Your task to perform on an android device: turn off picture-in-picture Image 0: 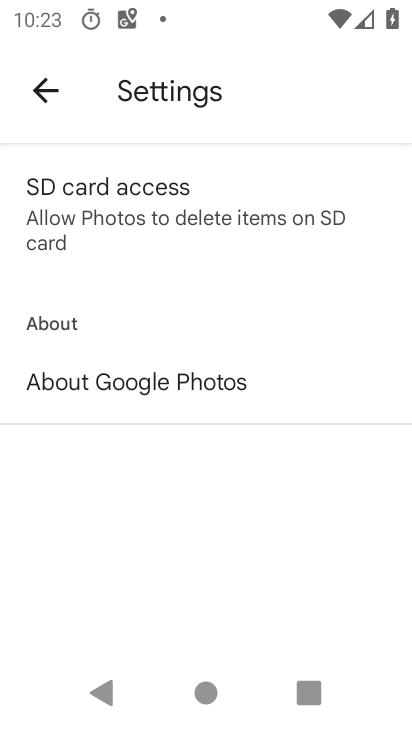
Step 0: click (42, 106)
Your task to perform on an android device: turn off picture-in-picture Image 1: 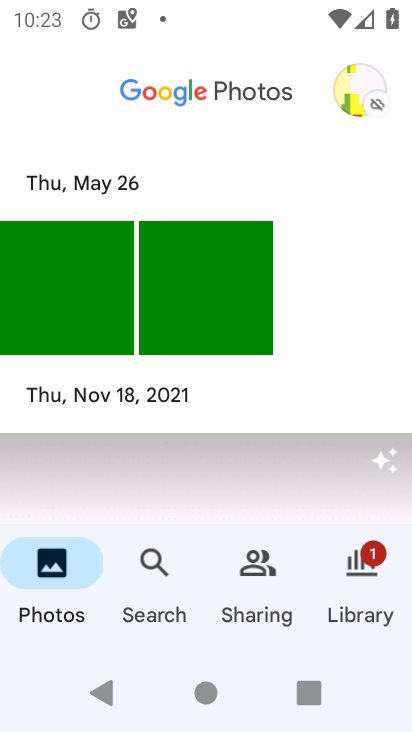
Step 1: press back button
Your task to perform on an android device: turn off picture-in-picture Image 2: 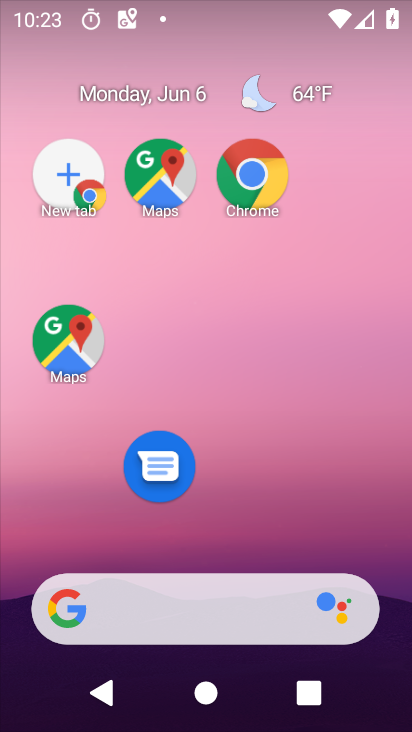
Step 2: click (253, 182)
Your task to perform on an android device: turn off picture-in-picture Image 3: 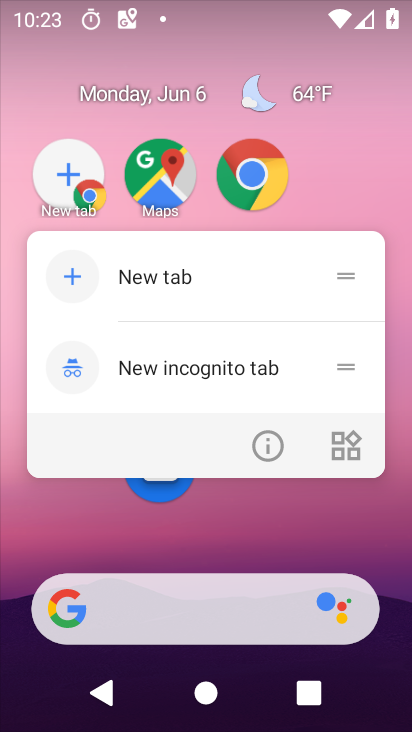
Step 3: click (274, 447)
Your task to perform on an android device: turn off picture-in-picture Image 4: 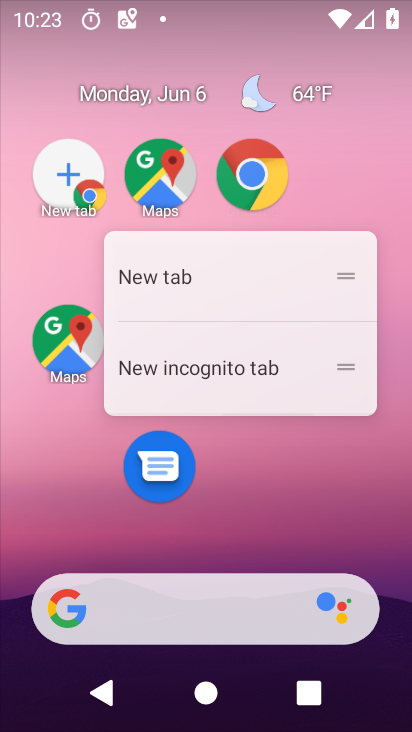
Step 4: click (274, 444)
Your task to perform on an android device: turn off picture-in-picture Image 5: 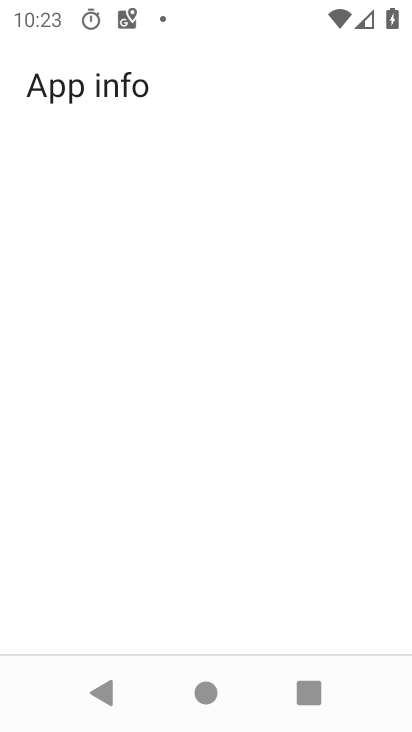
Step 5: click (273, 437)
Your task to perform on an android device: turn off picture-in-picture Image 6: 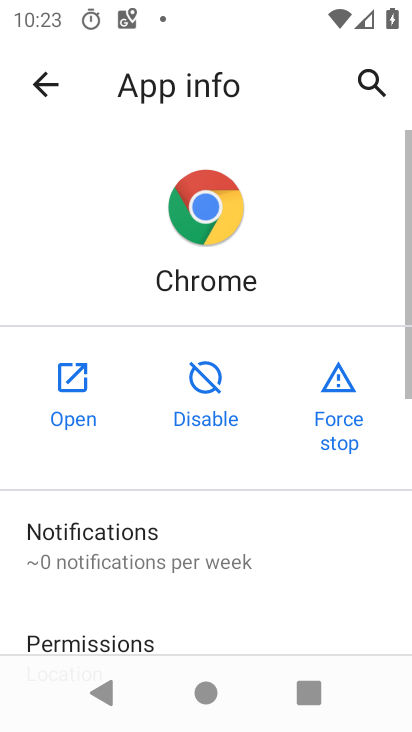
Step 6: drag from (195, 516) to (165, 200)
Your task to perform on an android device: turn off picture-in-picture Image 7: 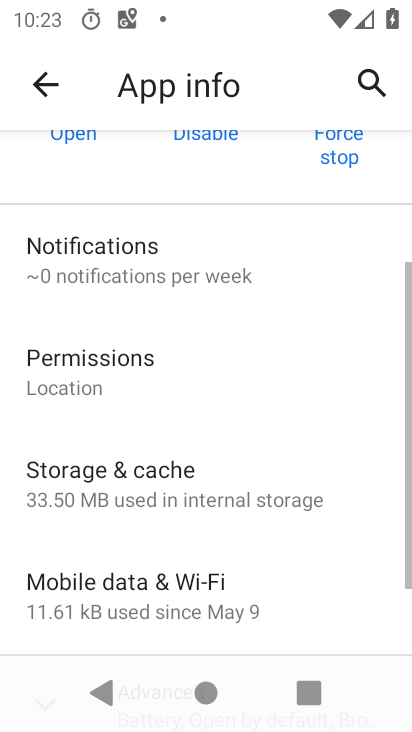
Step 7: drag from (153, 529) to (153, 219)
Your task to perform on an android device: turn off picture-in-picture Image 8: 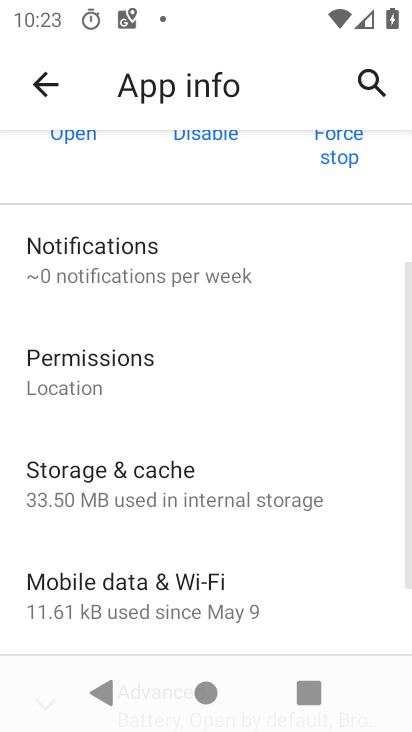
Step 8: drag from (238, 520) to (203, 171)
Your task to perform on an android device: turn off picture-in-picture Image 9: 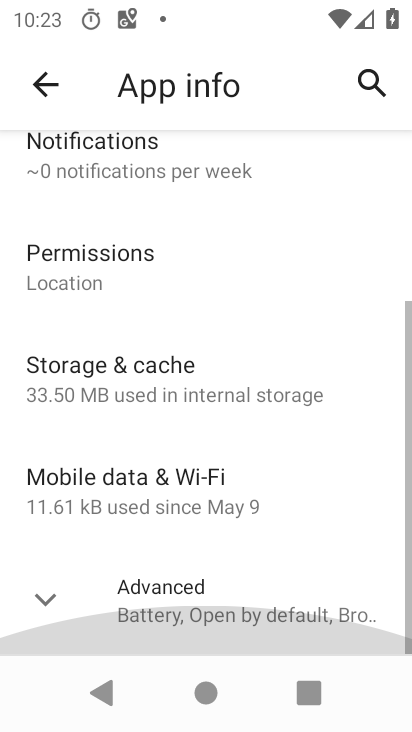
Step 9: drag from (153, 469) to (141, 279)
Your task to perform on an android device: turn off picture-in-picture Image 10: 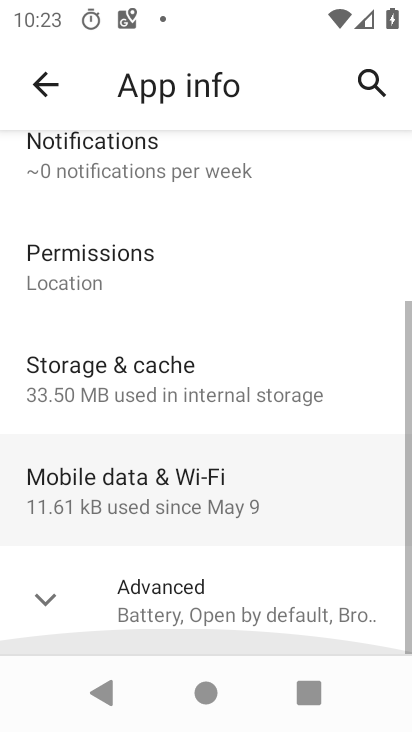
Step 10: drag from (163, 475) to (163, 150)
Your task to perform on an android device: turn off picture-in-picture Image 11: 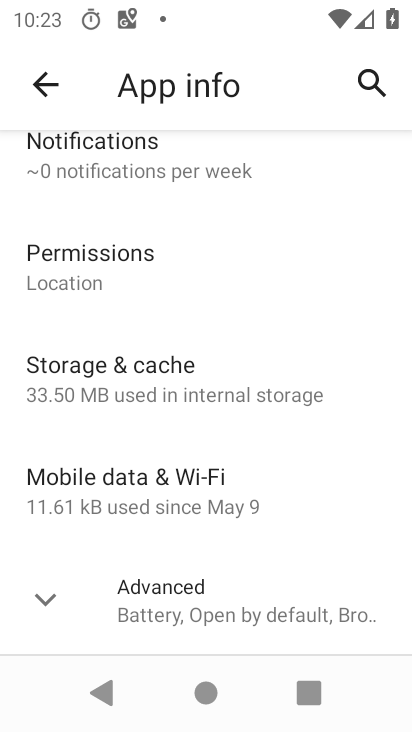
Step 11: click (181, 595)
Your task to perform on an android device: turn off picture-in-picture Image 12: 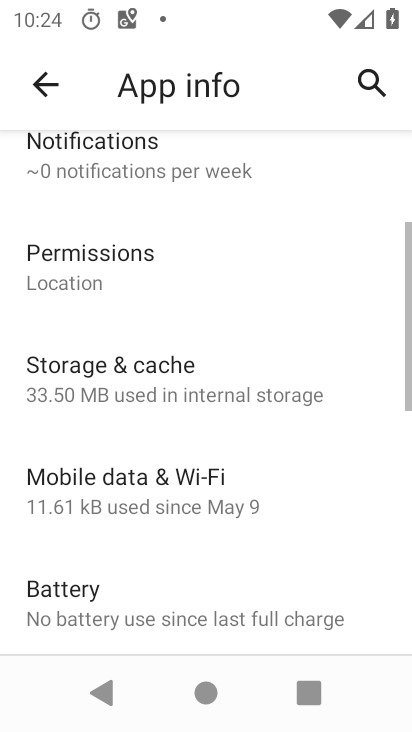
Step 12: drag from (183, 602) to (205, 256)
Your task to perform on an android device: turn off picture-in-picture Image 13: 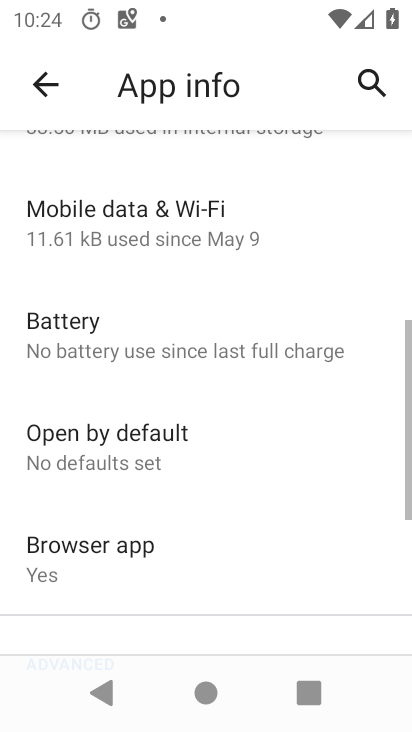
Step 13: drag from (178, 409) to (178, 171)
Your task to perform on an android device: turn off picture-in-picture Image 14: 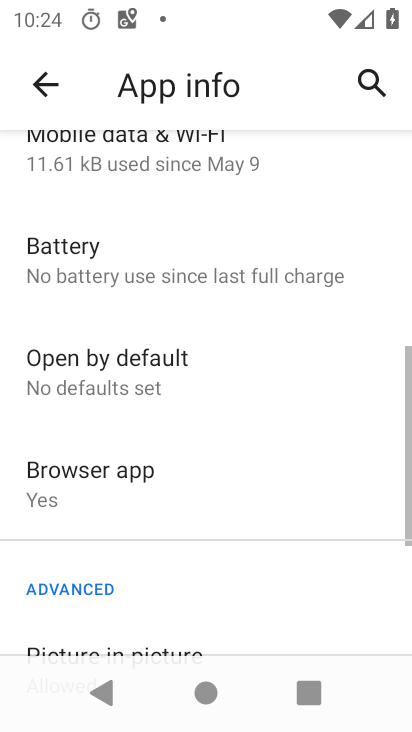
Step 14: drag from (169, 482) to (167, 176)
Your task to perform on an android device: turn off picture-in-picture Image 15: 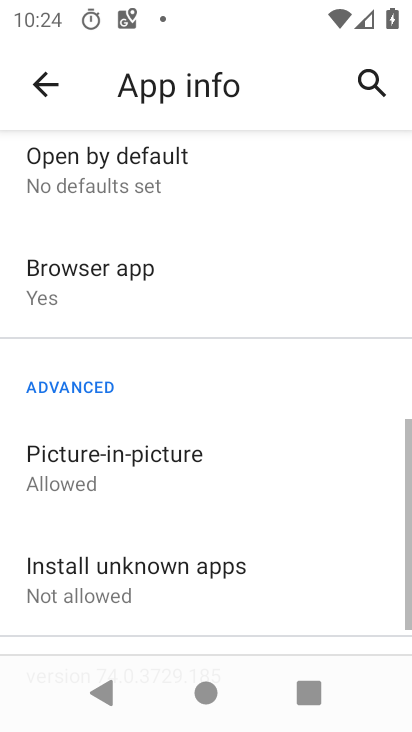
Step 15: drag from (165, 455) to (165, 198)
Your task to perform on an android device: turn off picture-in-picture Image 16: 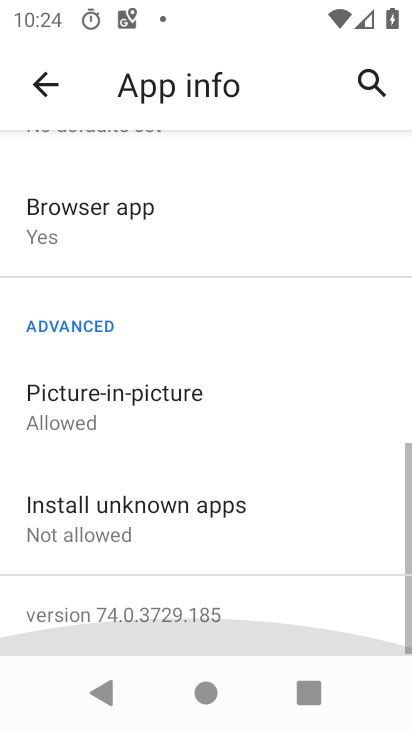
Step 16: drag from (160, 515) to (169, 233)
Your task to perform on an android device: turn off picture-in-picture Image 17: 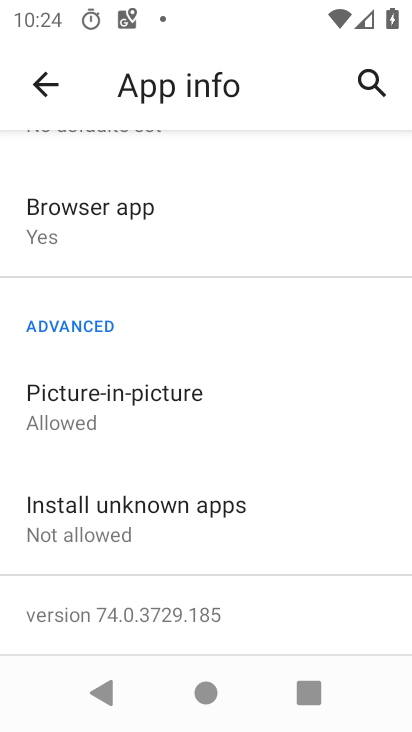
Step 17: click (76, 399)
Your task to perform on an android device: turn off picture-in-picture Image 18: 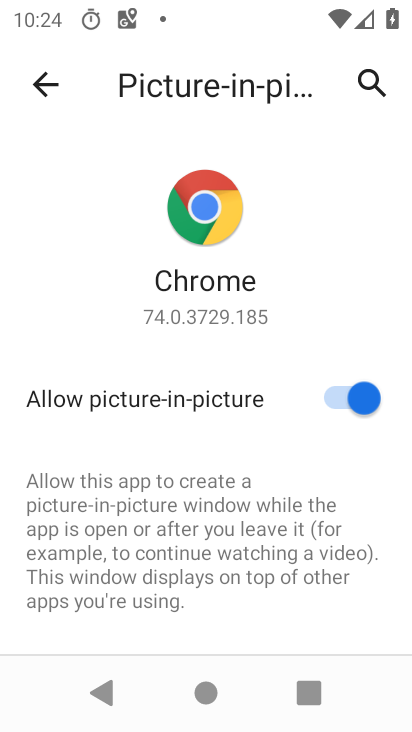
Step 18: click (367, 405)
Your task to perform on an android device: turn off picture-in-picture Image 19: 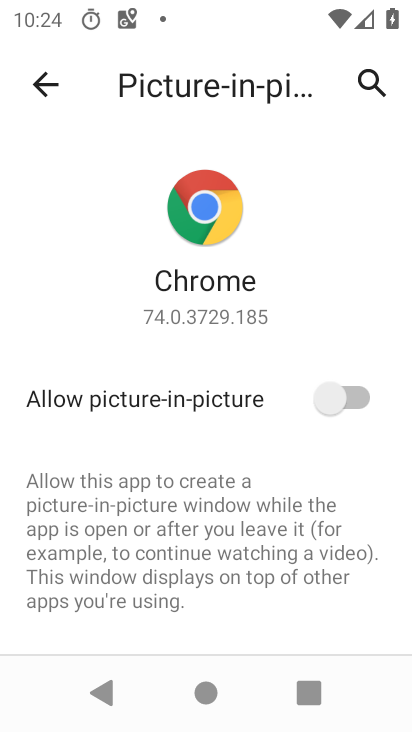
Step 19: task complete